Your task to perform on an android device: turn on the 12-hour format for clock Image 0: 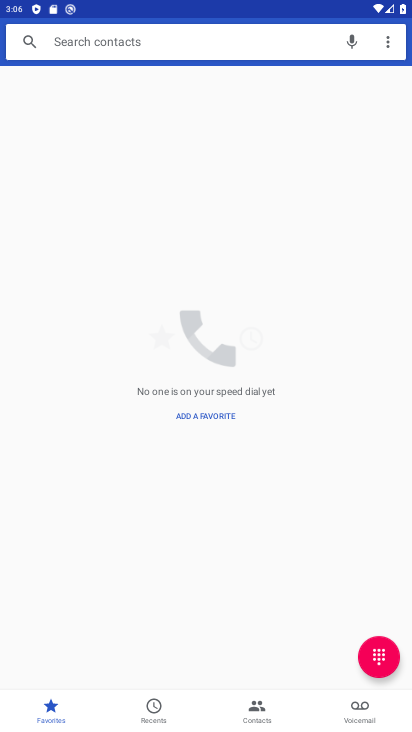
Step 0: press back button
Your task to perform on an android device: turn on the 12-hour format for clock Image 1: 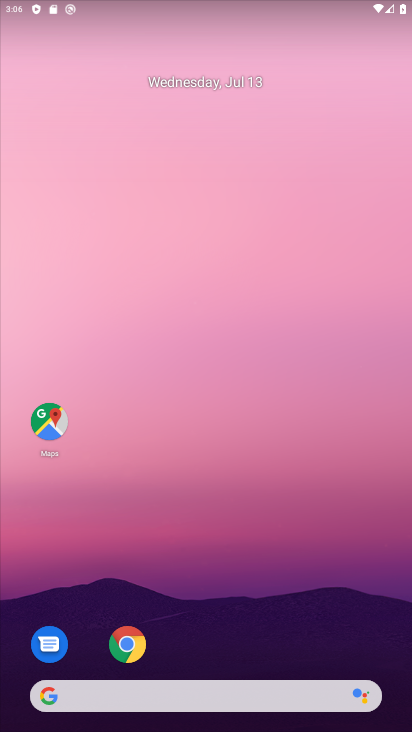
Step 1: drag from (209, 662) to (285, 28)
Your task to perform on an android device: turn on the 12-hour format for clock Image 2: 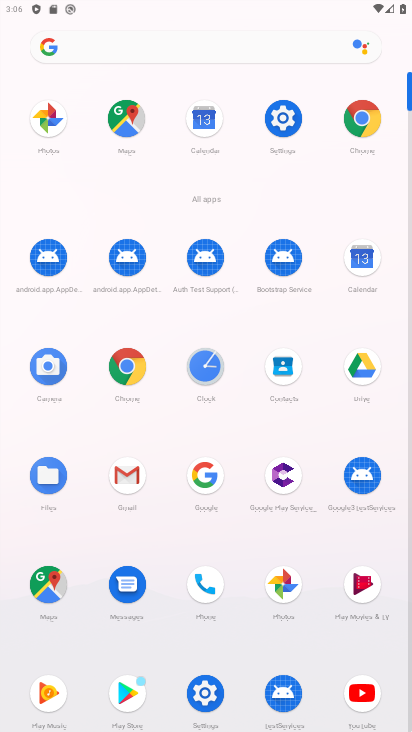
Step 2: click (204, 362)
Your task to perform on an android device: turn on the 12-hour format for clock Image 3: 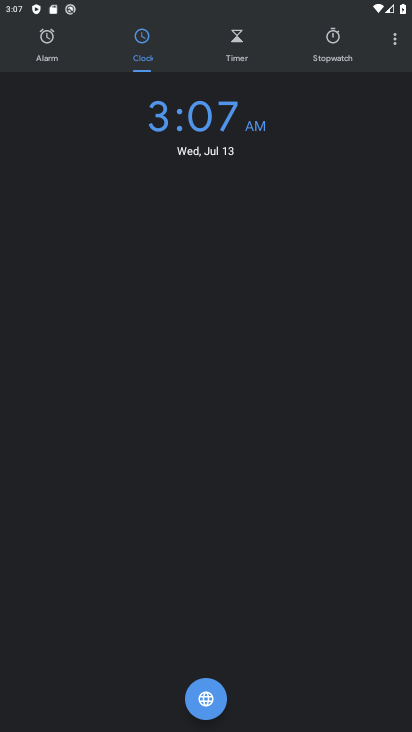
Step 3: click (401, 43)
Your task to perform on an android device: turn on the 12-hour format for clock Image 4: 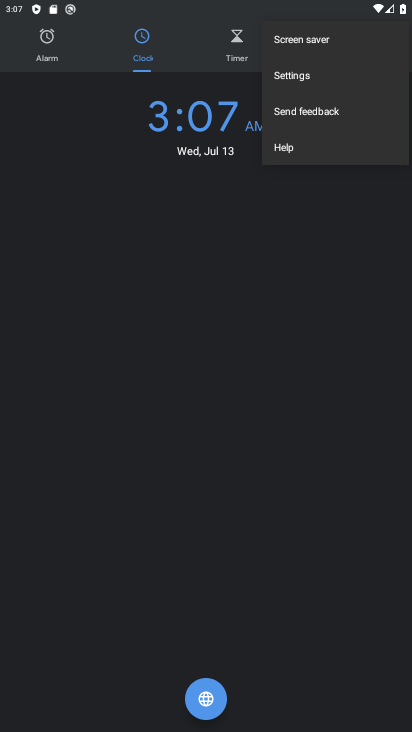
Step 4: click (306, 77)
Your task to perform on an android device: turn on the 12-hour format for clock Image 5: 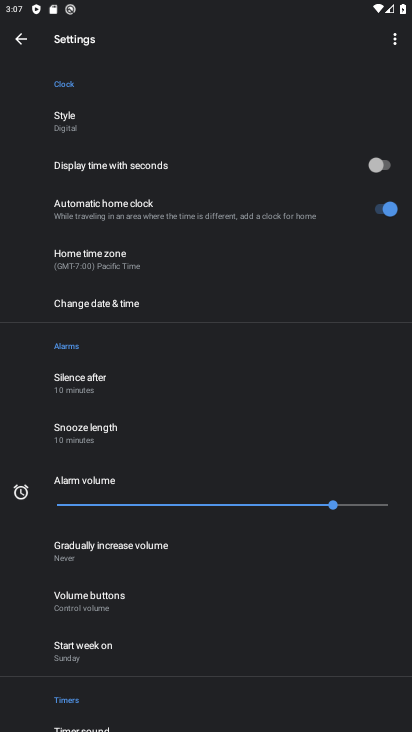
Step 5: click (140, 302)
Your task to perform on an android device: turn on the 12-hour format for clock Image 6: 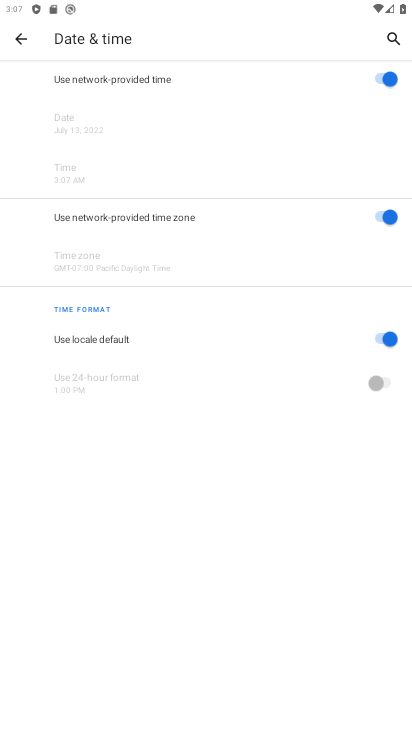
Step 6: task complete